Your task to perform on an android device: Toggle the flashlight Image 0: 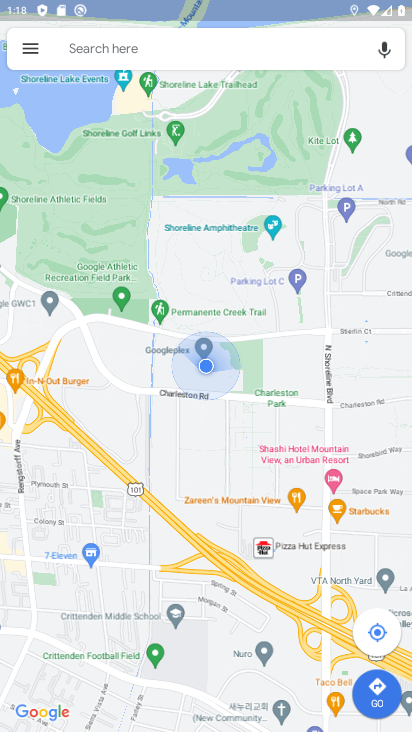
Step 0: press home button
Your task to perform on an android device: Toggle the flashlight Image 1: 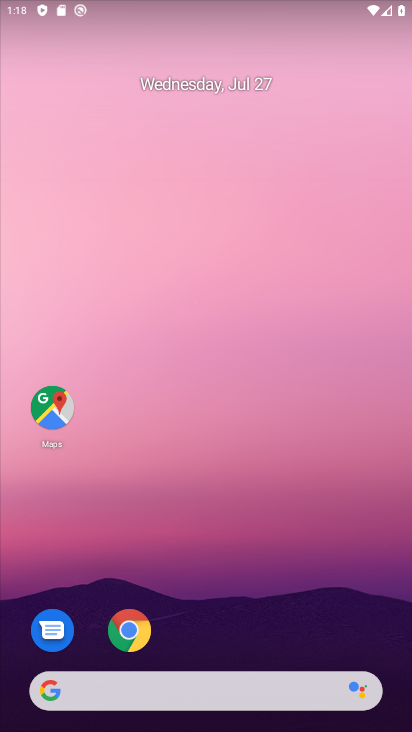
Step 1: drag from (260, 15) to (120, 524)
Your task to perform on an android device: Toggle the flashlight Image 2: 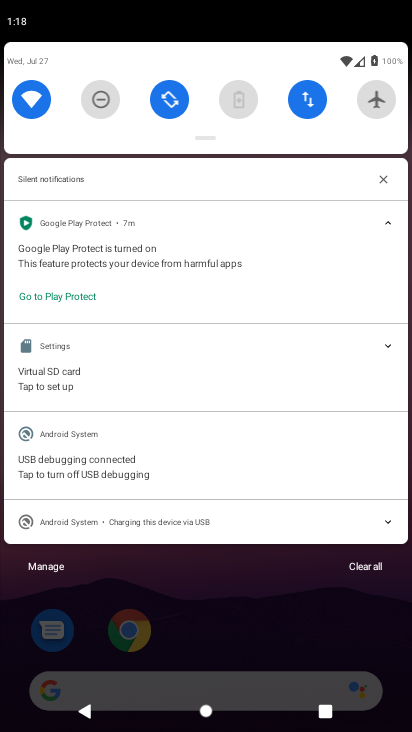
Step 2: drag from (243, 136) to (232, 204)
Your task to perform on an android device: Toggle the flashlight Image 3: 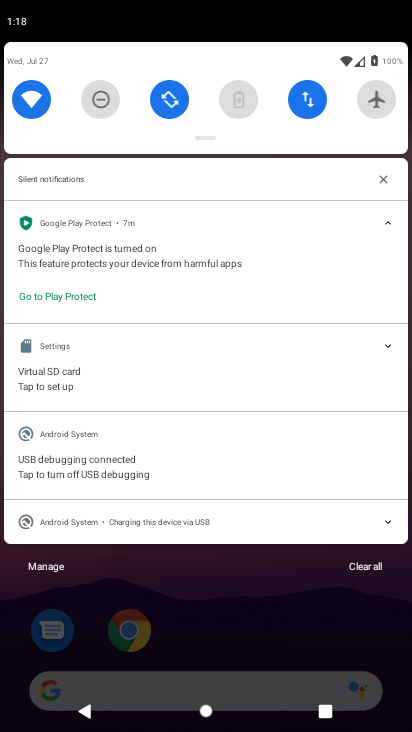
Step 3: drag from (276, 133) to (207, 533)
Your task to perform on an android device: Toggle the flashlight Image 4: 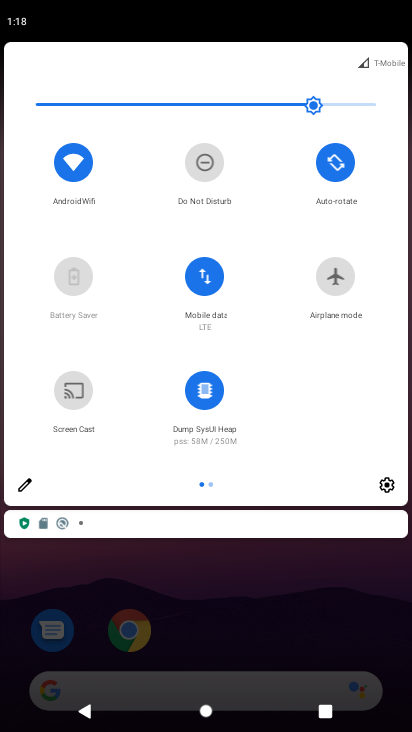
Step 4: click (381, 389)
Your task to perform on an android device: Toggle the flashlight Image 5: 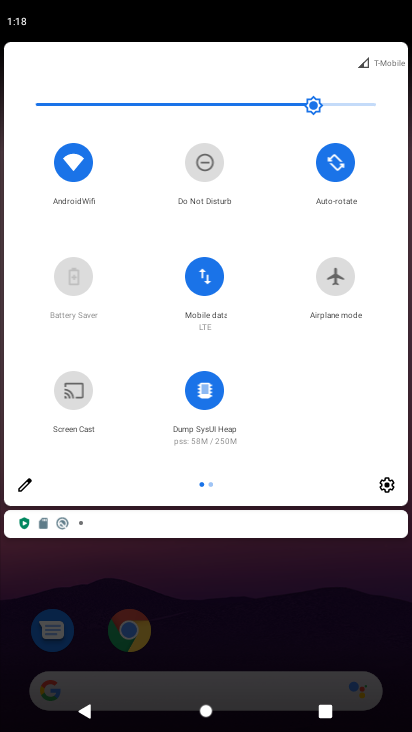
Step 5: click (329, 397)
Your task to perform on an android device: Toggle the flashlight Image 6: 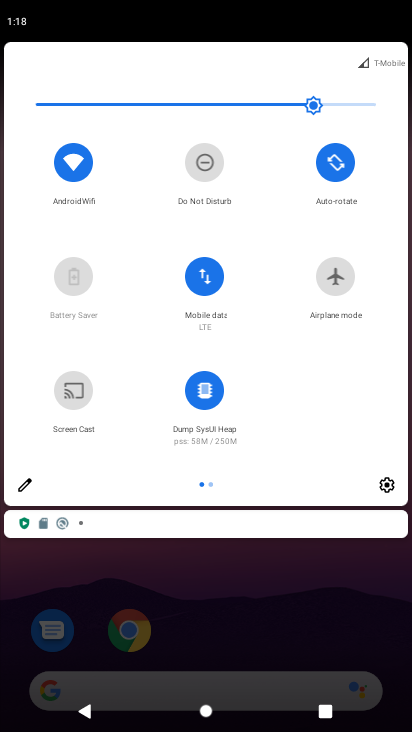
Step 6: click (209, 487)
Your task to perform on an android device: Toggle the flashlight Image 7: 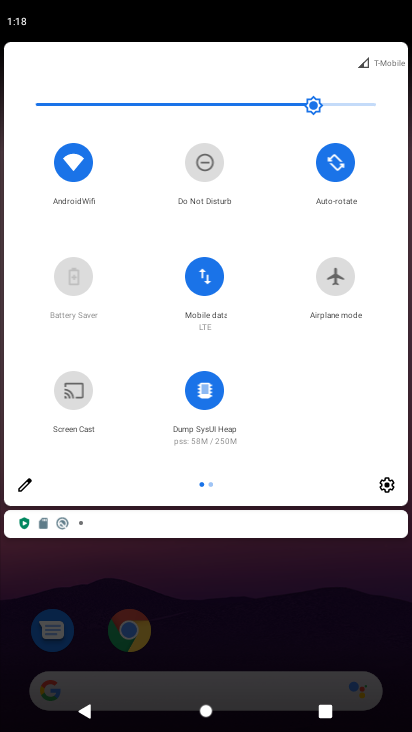
Step 7: click (214, 486)
Your task to perform on an android device: Toggle the flashlight Image 8: 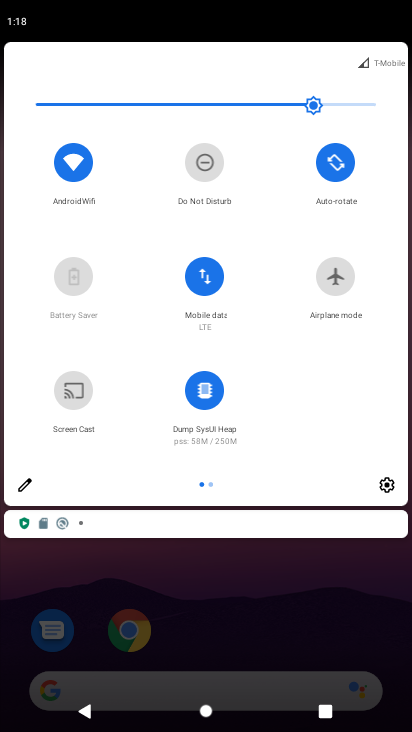
Step 8: drag from (343, 399) to (20, 442)
Your task to perform on an android device: Toggle the flashlight Image 9: 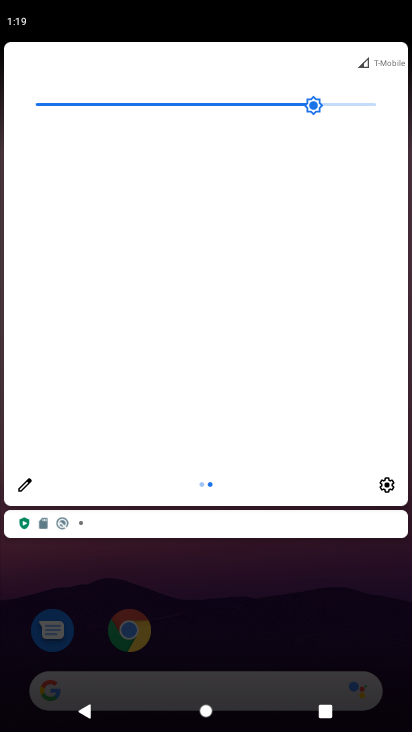
Step 9: click (386, 490)
Your task to perform on an android device: Toggle the flashlight Image 10: 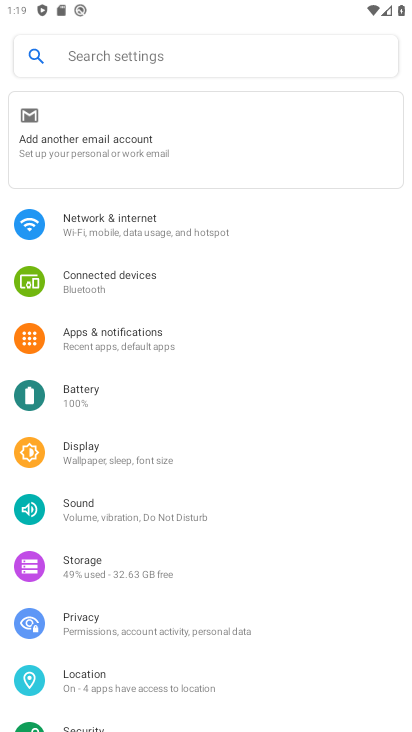
Step 10: task complete